Your task to perform on an android device: Open battery settings Image 0: 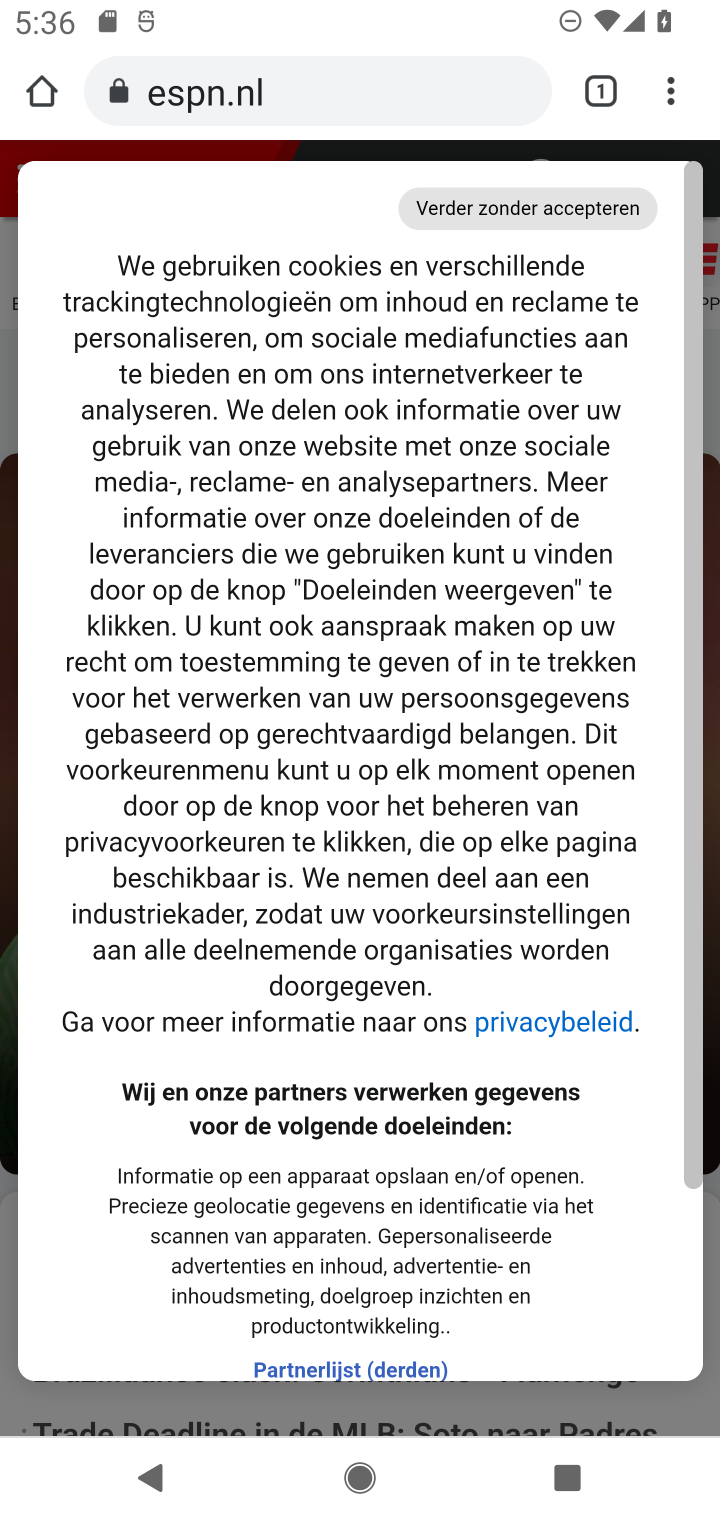
Step 0: press home button
Your task to perform on an android device: Open battery settings Image 1: 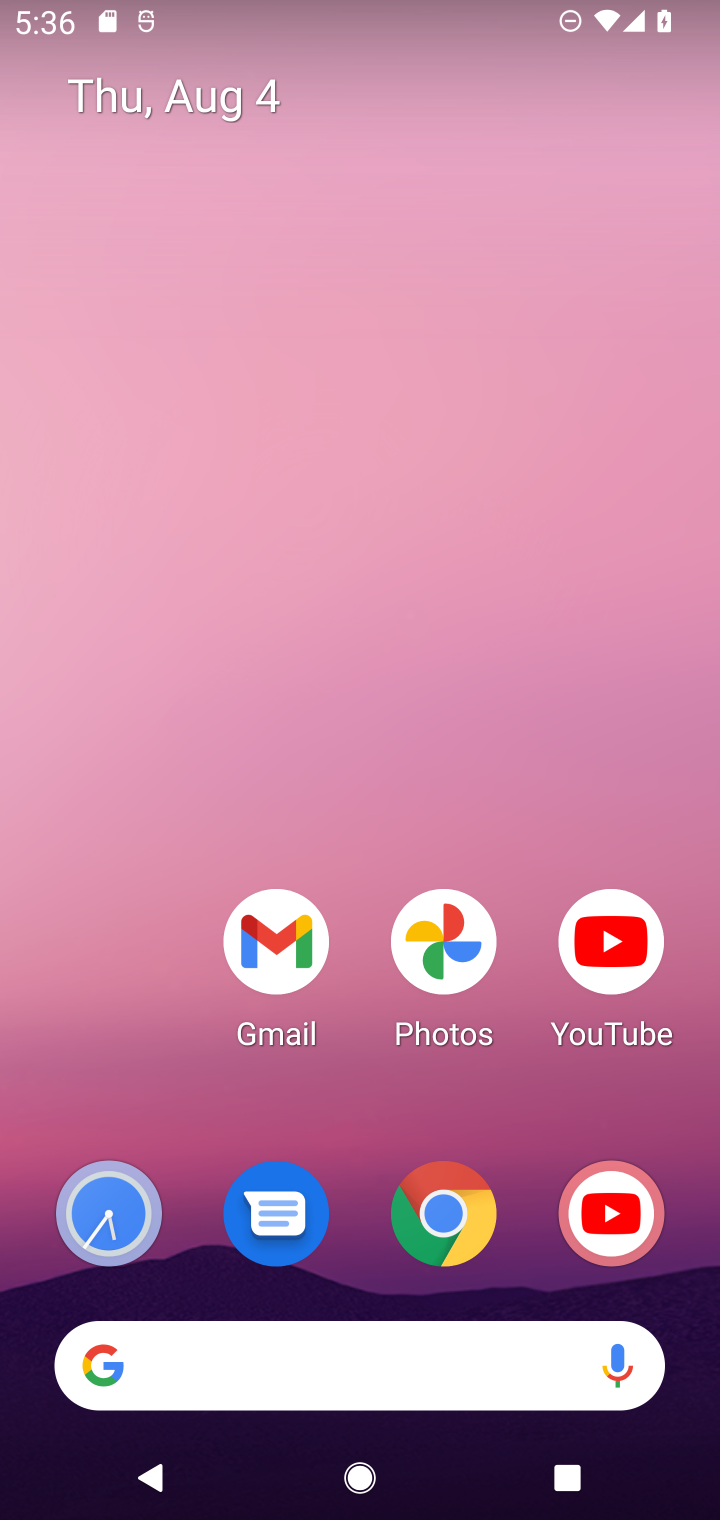
Step 1: drag from (171, 1127) to (224, 417)
Your task to perform on an android device: Open battery settings Image 2: 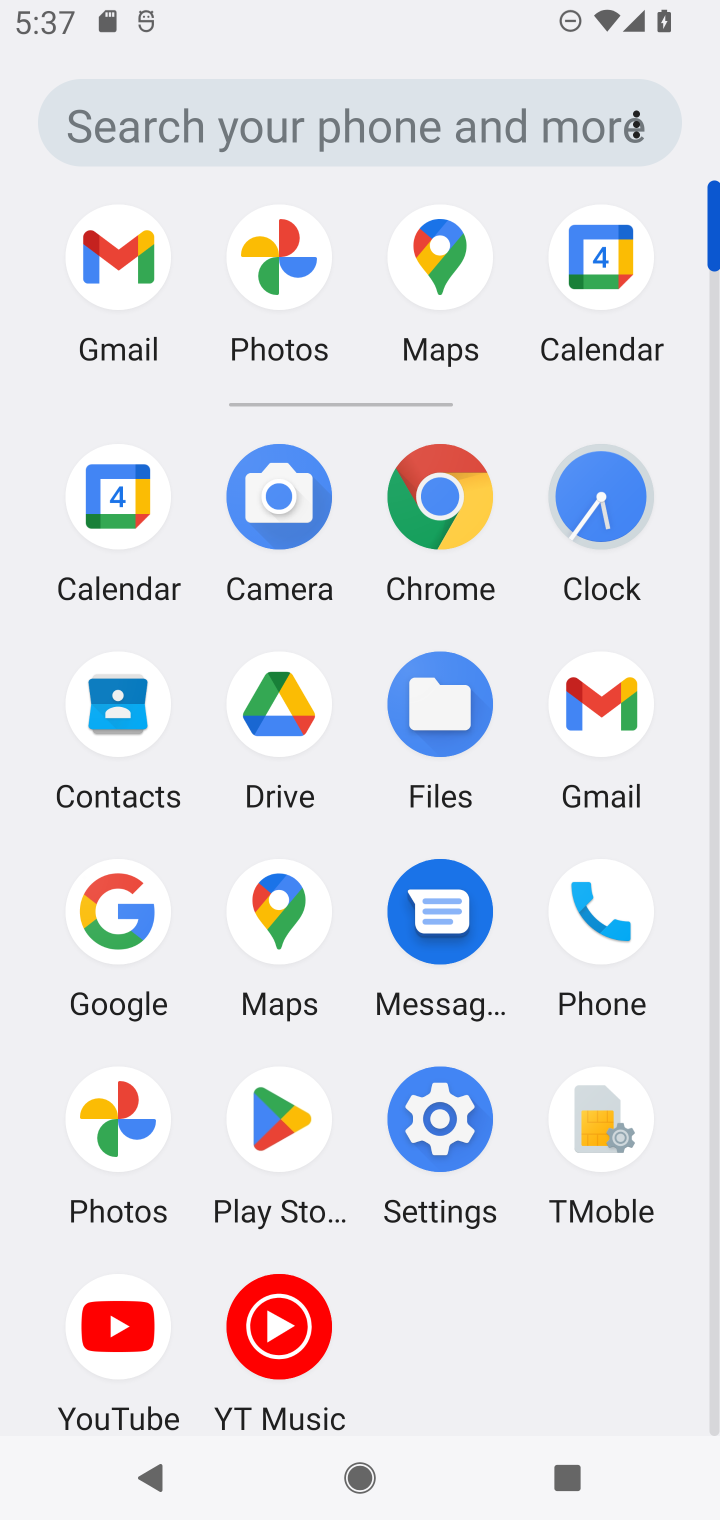
Step 2: click (456, 1142)
Your task to perform on an android device: Open battery settings Image 3: 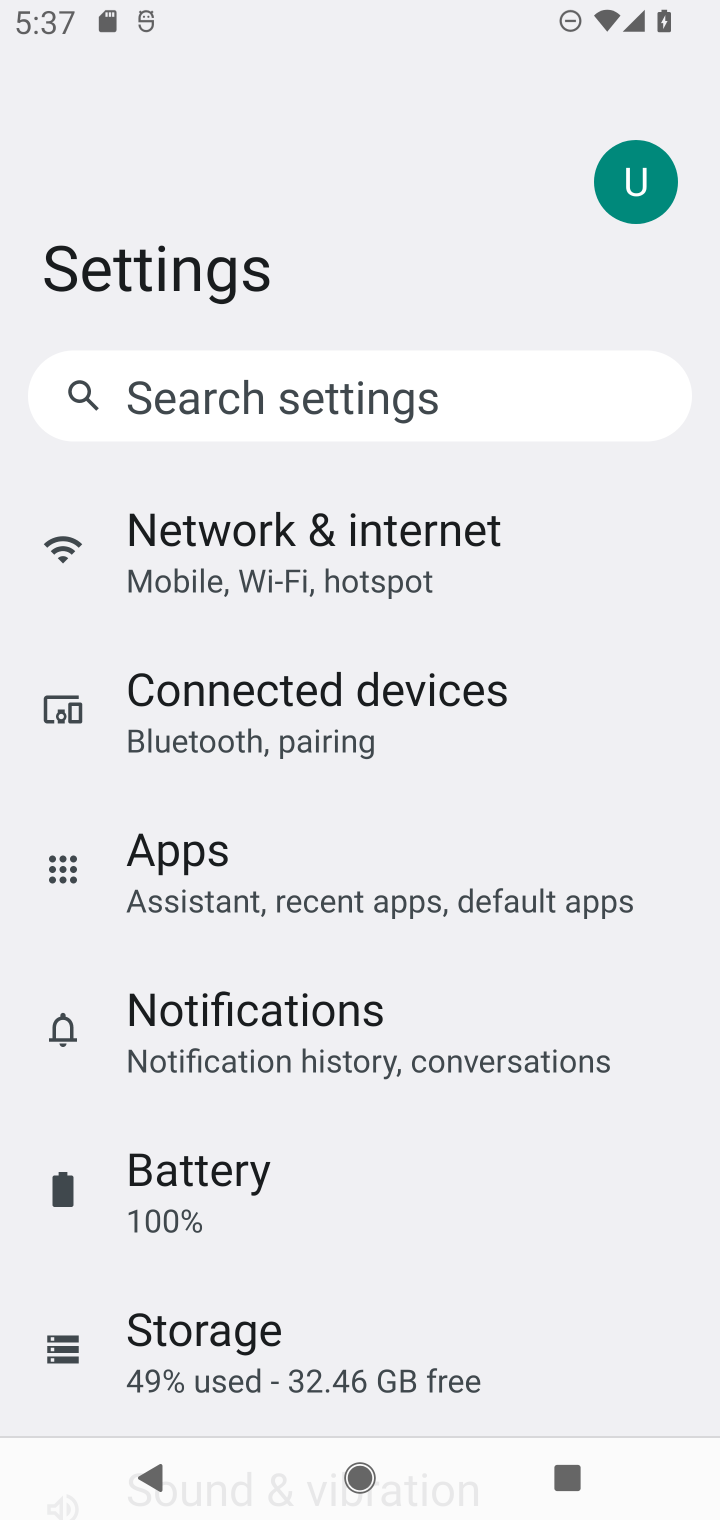
Step 3: click (319, 1194)
Your task to perform on an android device: Open battery settings Image 4: 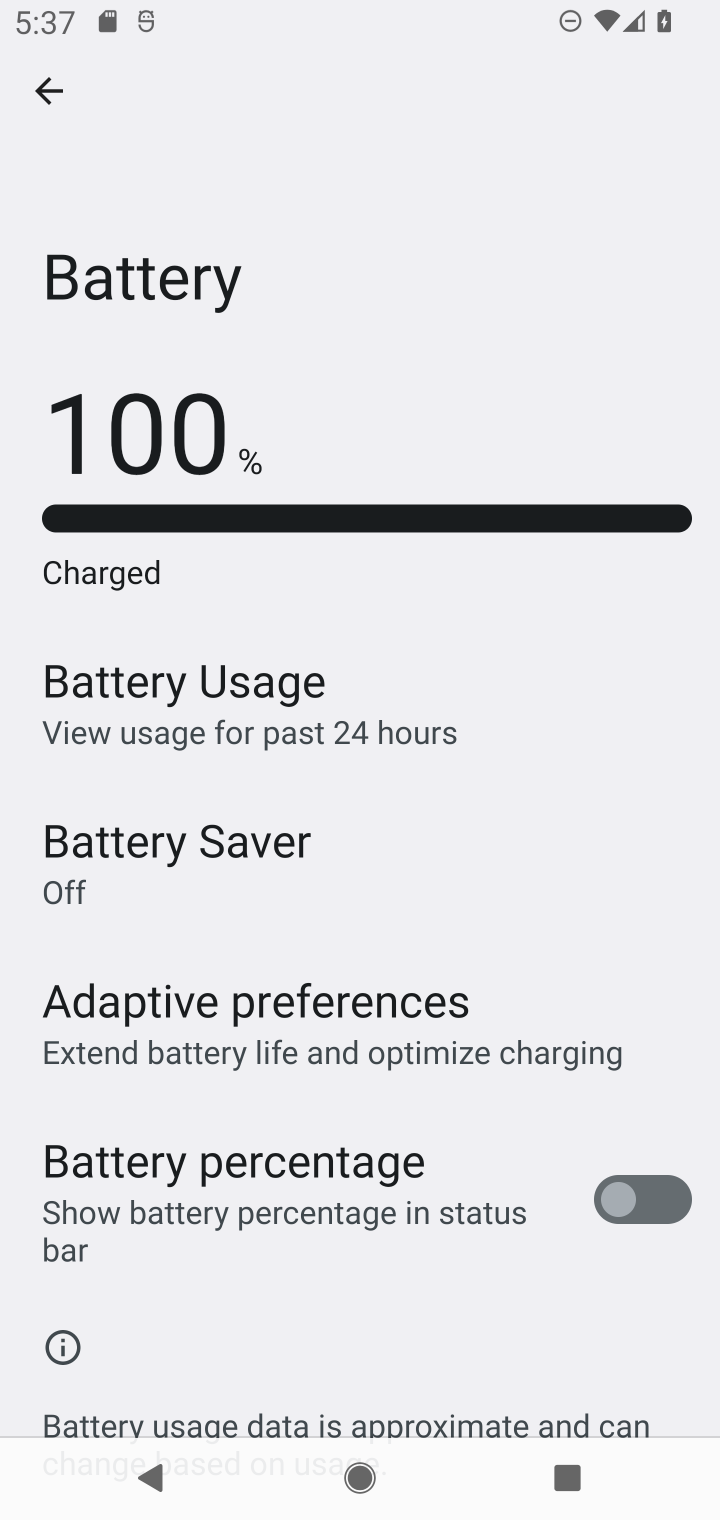
Step 4: task complete